Your task to perform on an android device: Go to Google Image 0: 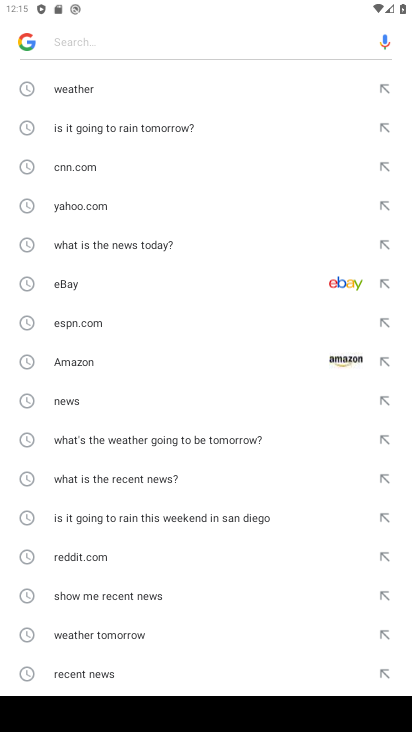
Step 0: click (28, 42)
Your task to perform on an android device: Go to Google Image 1: 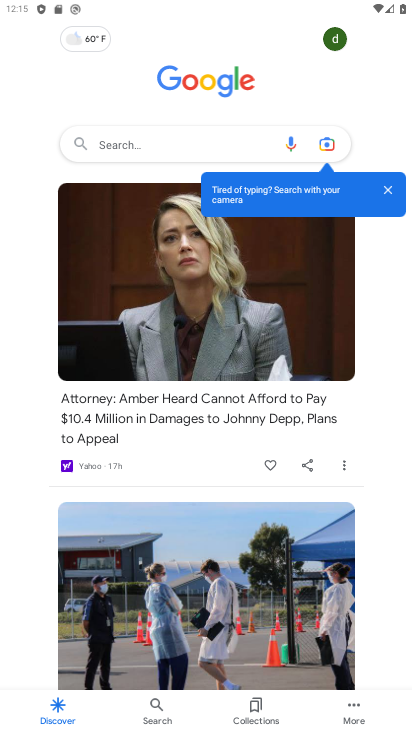
Step 1: task complete